Your task to perform on an android device: open a bookmark in the chrome app Image 0: 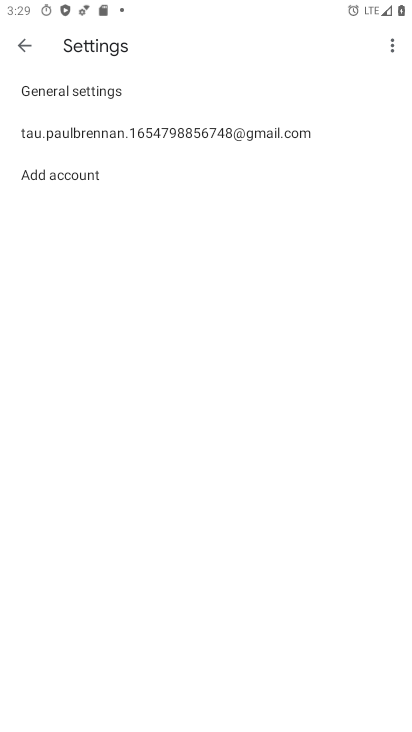
Step 0: press home button
Your task to perform on an android device: open a bookmark in the chrome app Image 1: 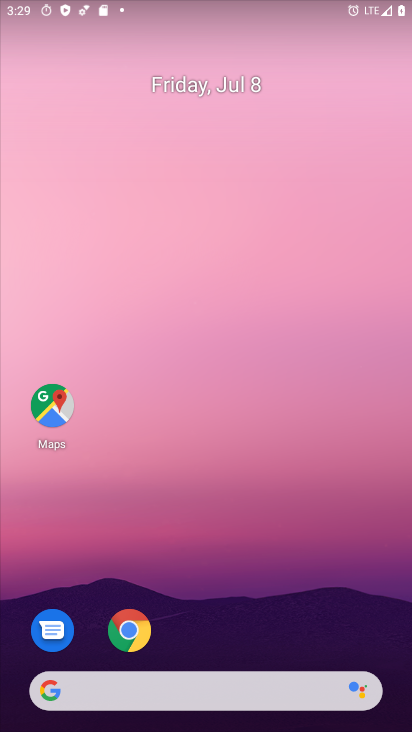
Step 1: drag from (219, 511) to (213, 239)
Your task to perform on an android device: open a bookmark in the chrome app Image 2: 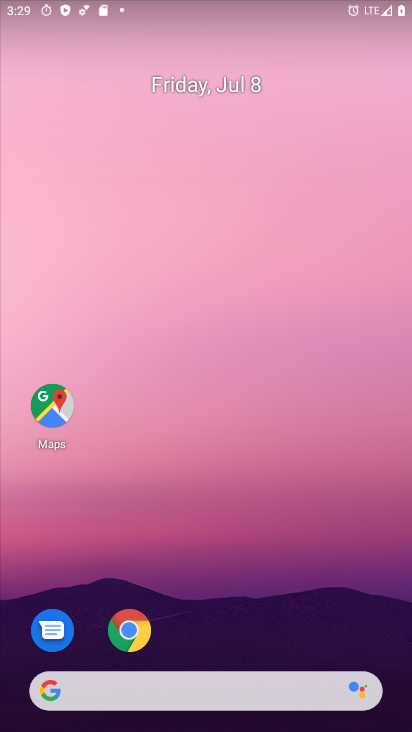
Step 2: drag from (229, 368) to (210, 47)
Your task to perform on an android device: open a bookmark in the chrome app Image 3: 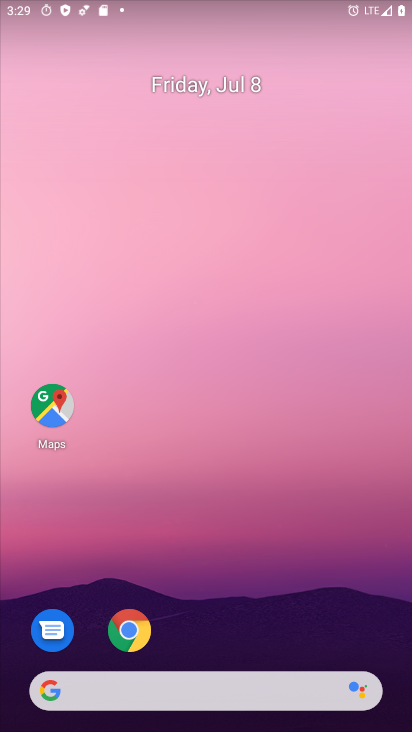
Step 3: click (126, 626)
Your task to perform on an android device: open a bookmark in the chrome app Image 4: 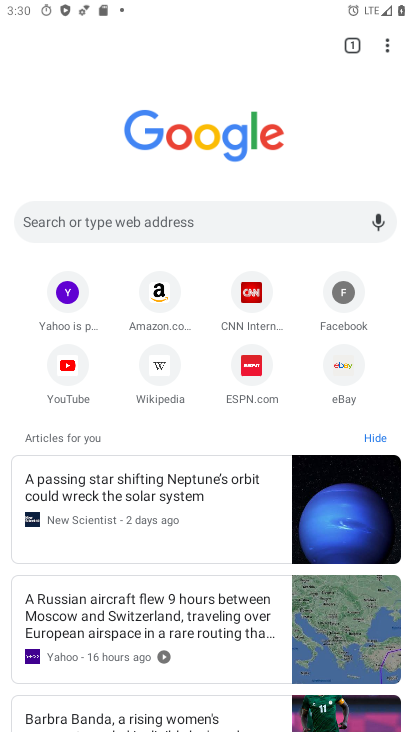
Step 4: click (387, 44)
Your task to perform on an android device: open a bookmark in the chrome app Image 5: 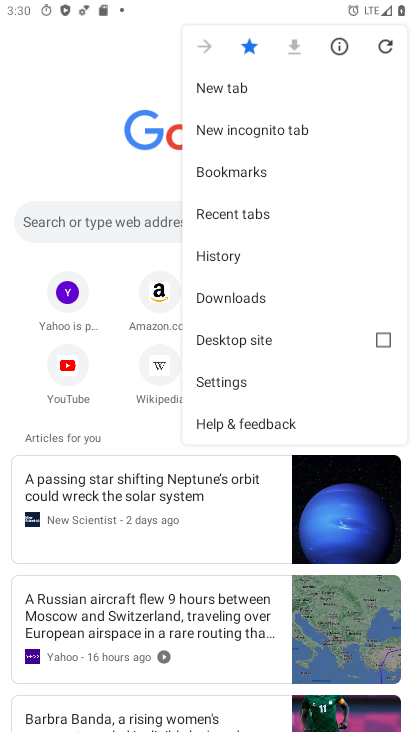
Step 5: click (242, 174)
Your task to perform on an android device: open a bookmark in the chrome app Image 6: 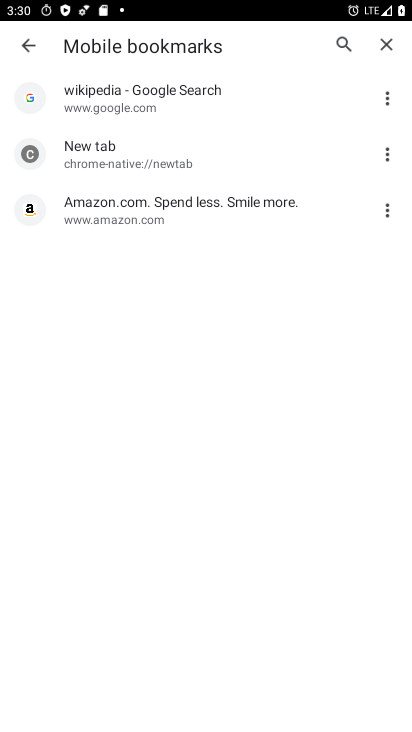
Step 6: click (177, 106)
Your task to perform on an android device: open a bookmark in the chrome app Image 7: 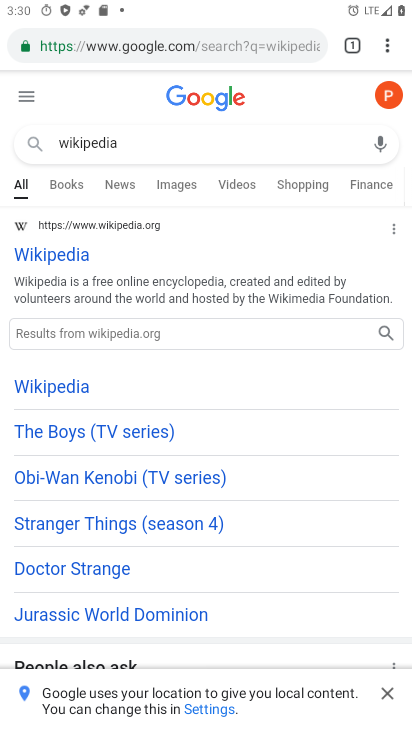
Step 7: task complete